Your task to perform on an android device: Turn on the flashlight Image 0: 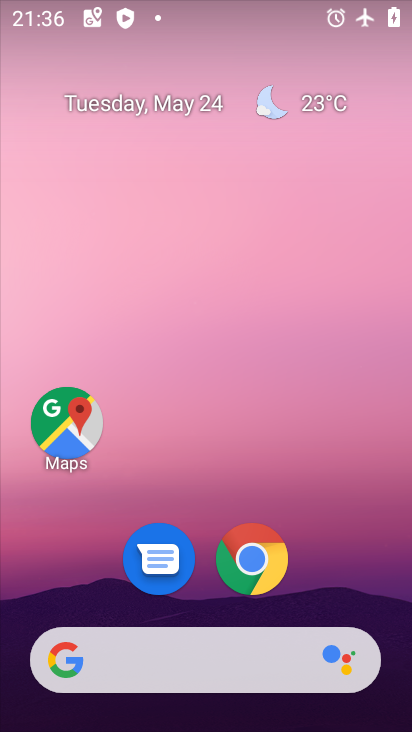
Step 0: drag from (350, 551) to (303, 183)
Your task to perform on an android device: Turn on the flashlight Image 1: 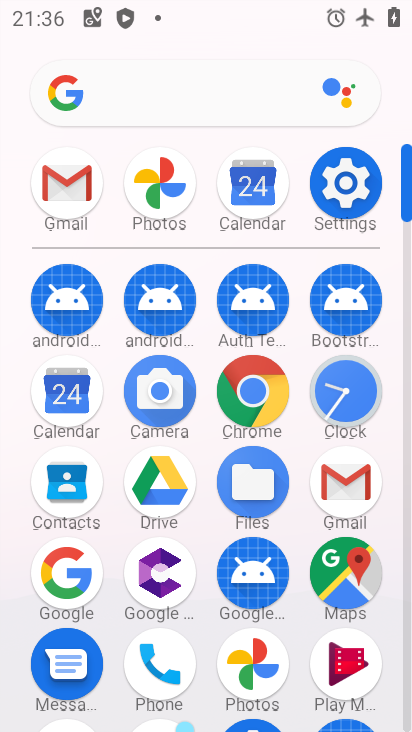
Step 1: click (332, 182)
Your task to perform on an android device: Turn on the flashlight Image 2: 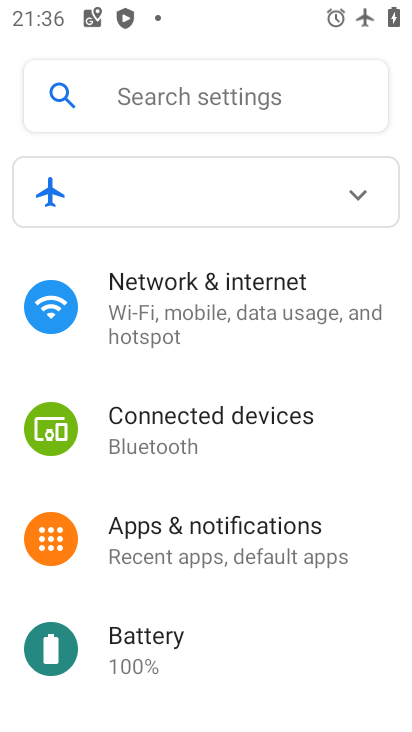
Step 2: drag from (208, 649) to (231, 261)
Your task to perform on an android device: Turn on the flashlight Image 3: 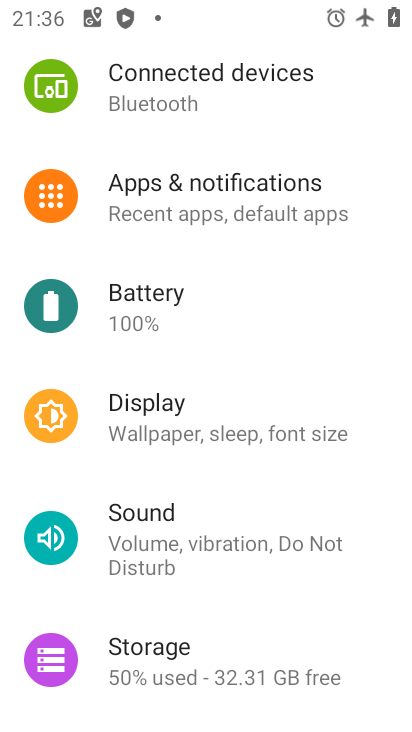
Step 3: click (171, 399)
Your task to perform on an android device: Turn on the flashlight Image 4: 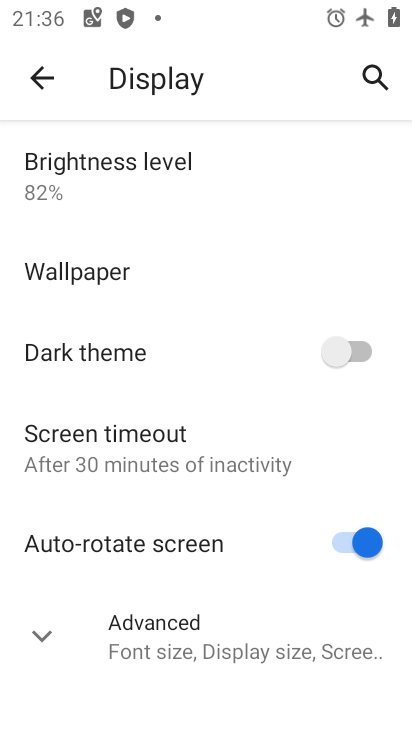
Step 4: task complete